Your task to perform on an android device: Open Maps and search for coffee Image 0: 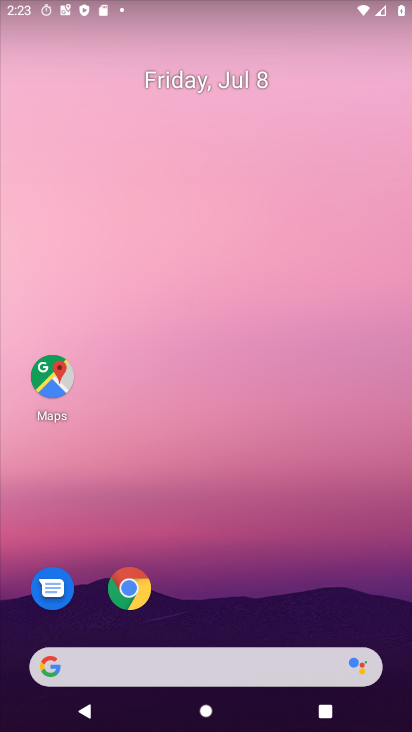
Step 0: press home button
Your task to perform on an android device: Open Maps and search for coffee Image 1: 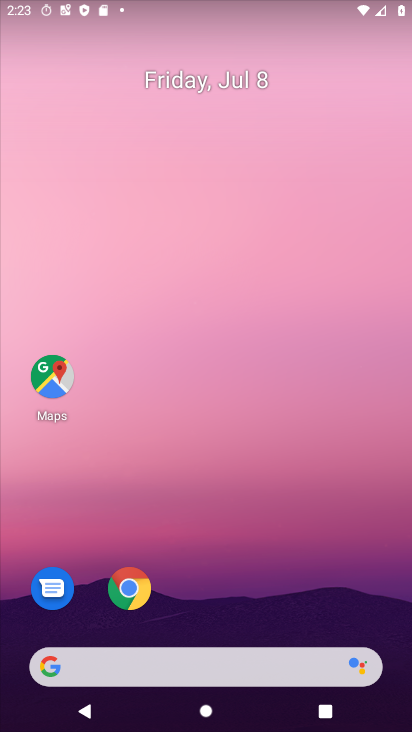
Step 1: drag from (240, 626) to (227, 99)
Your task to perform on an android device: Open Maps and search for coffee Image 2: 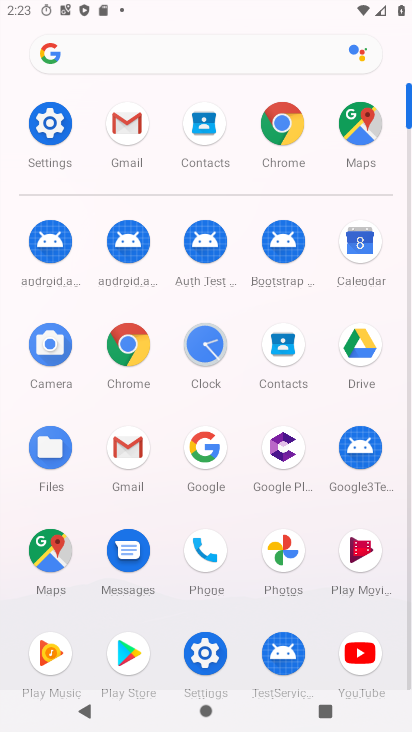
Step 2: click (358, 140)
Your task to perform on an android device: Open Maps and search for coffee Image 3: 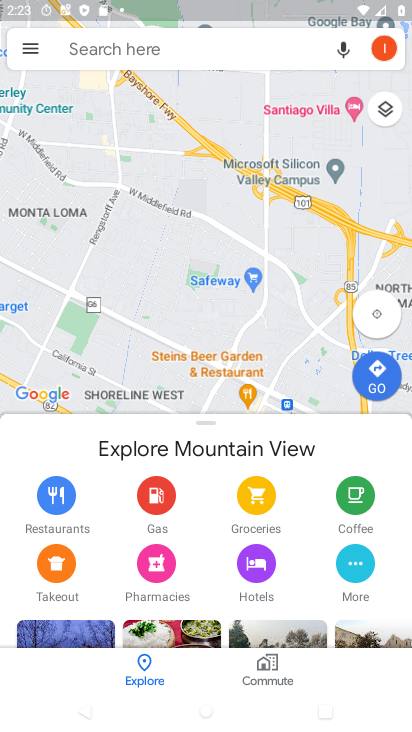
Step 3: click (150, 46)
Your task to perform on an android device: Open Maps and search for coffee Image 4: 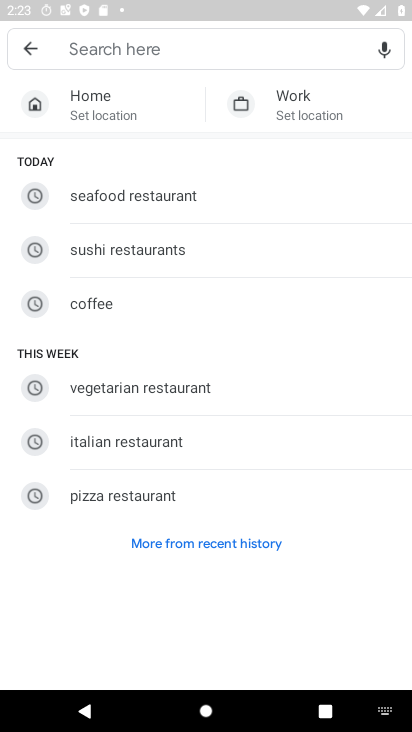
Step 4: click (95, 306)
Your task to perform on an android device: Open Maps and search for coffee Image 5: 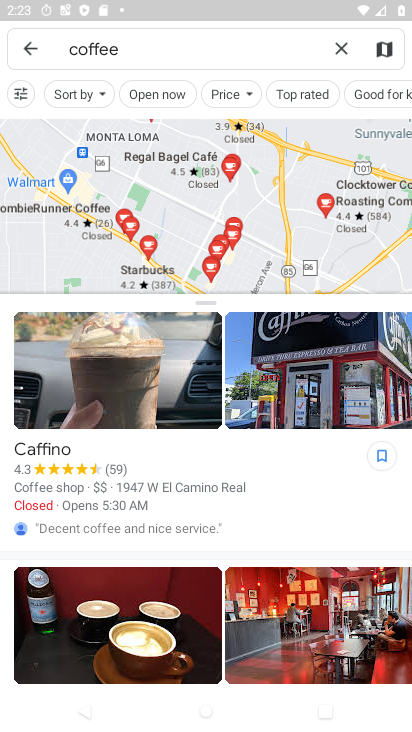
Step 5: task complete